Your task to perform on an android device: Empty the shopping cart on amazon.com. Image 0: 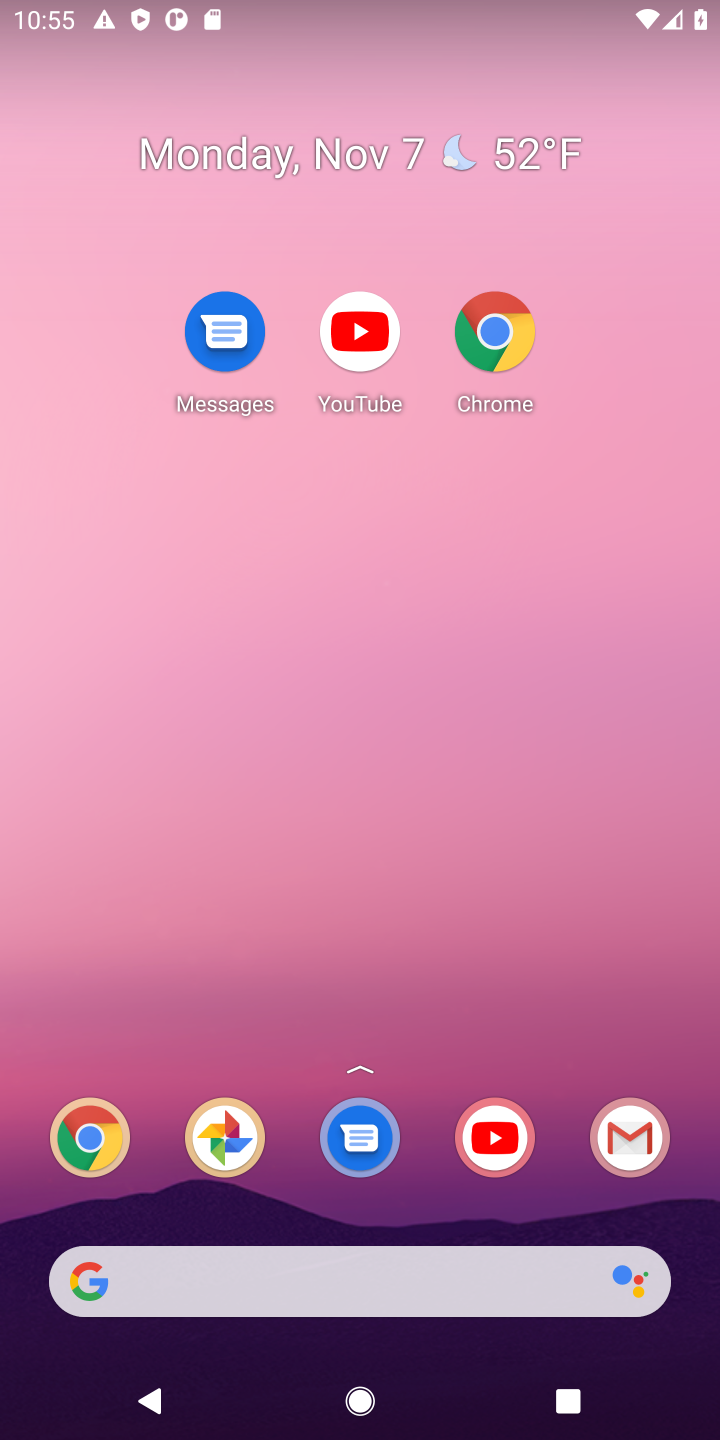
Step 0: drag from (433, 1079) to (571, 106)
Your task to perform on an android device: Empty the shopping cart on amazon.com. Image 1: 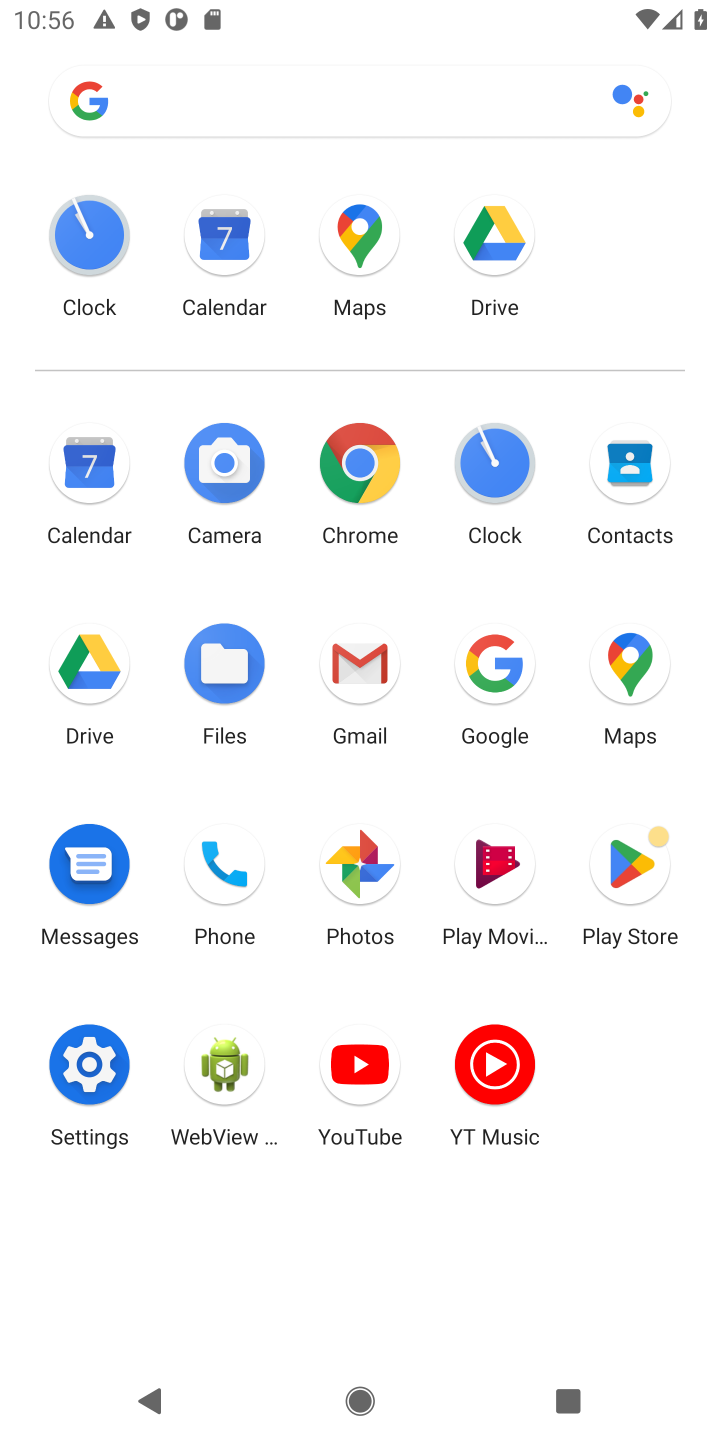
Step 1: click (358, 467)
Your task to perform on an android device: Empty the shopping cart on amazon.com. Image 2: 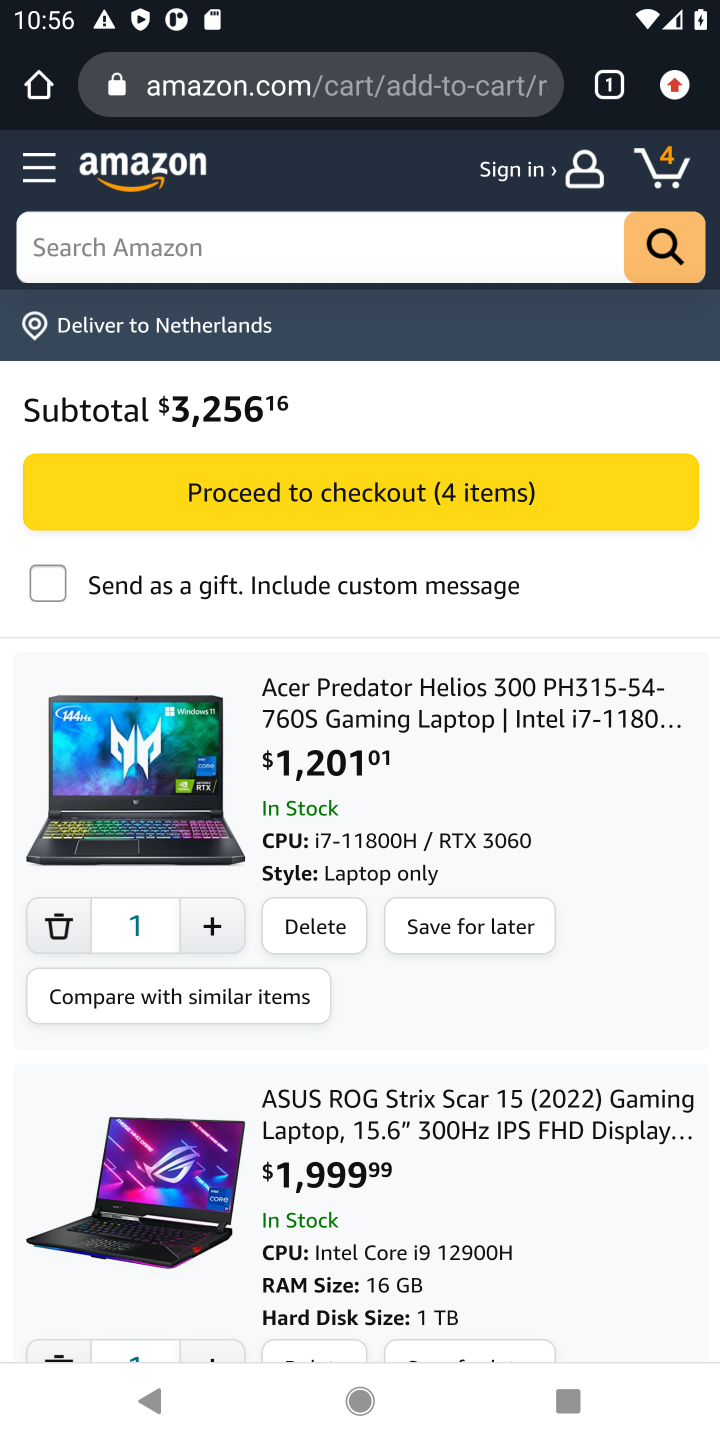
Step 2: click (656, 165)
Your task to perform on an android device: Empty the shopping cart on amazon.com. Image 3: 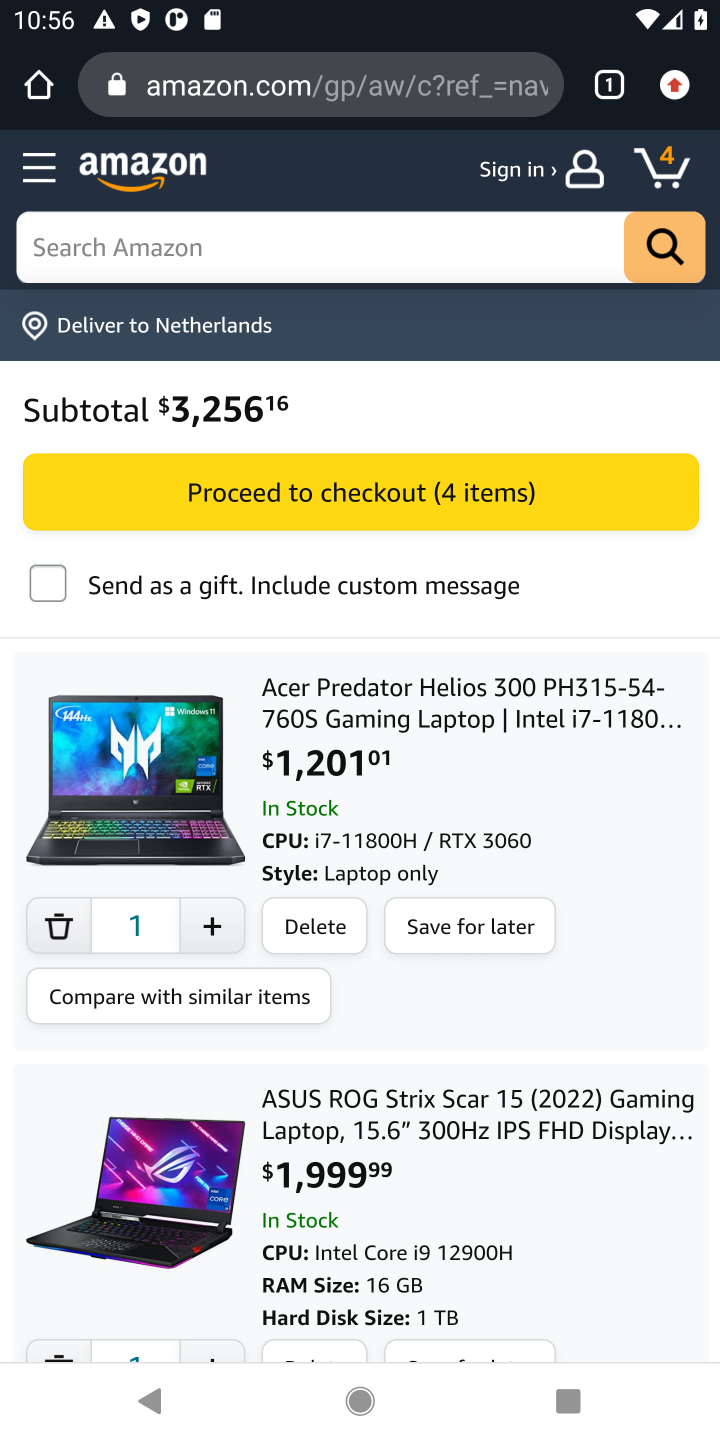
Step 3: click (68, 920)
Your task to perform on an android device: Empty the shopping cart on amazon.com. Image 4: 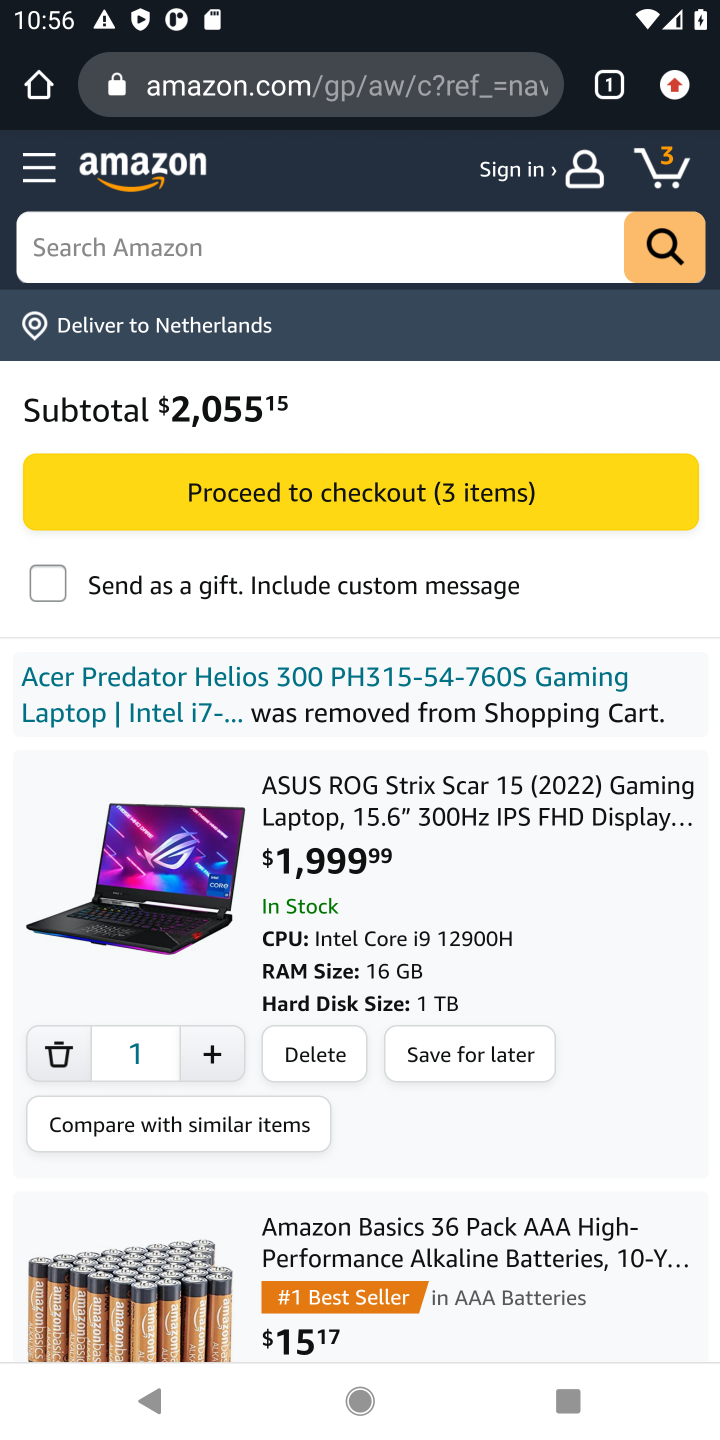
Step 4: click (45, 1047)
Your task to perform on an android device: Empty the shopping cart on amazon.com. Image 5: 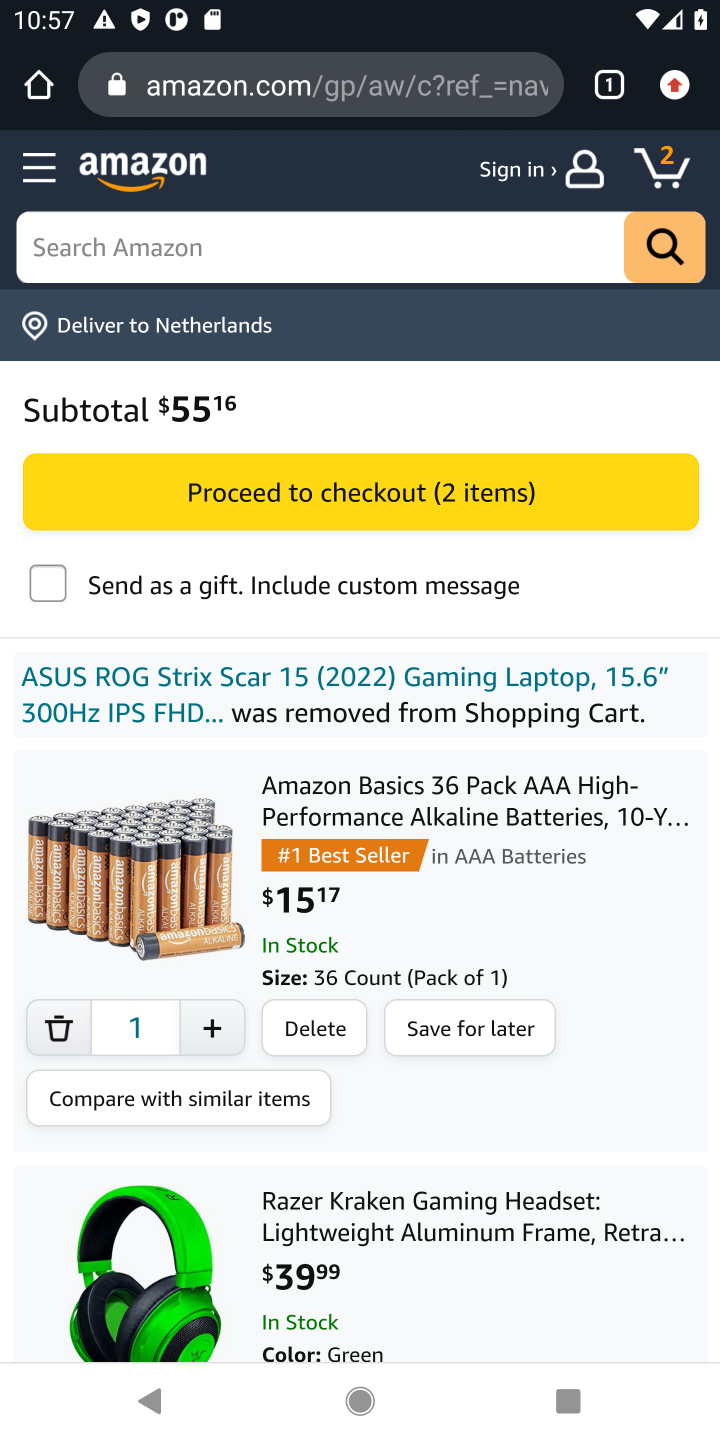
Step 5: click (62, 1014)
Your task to perform on an android device: Empty the shopping cart on amazon.com. Image 6: 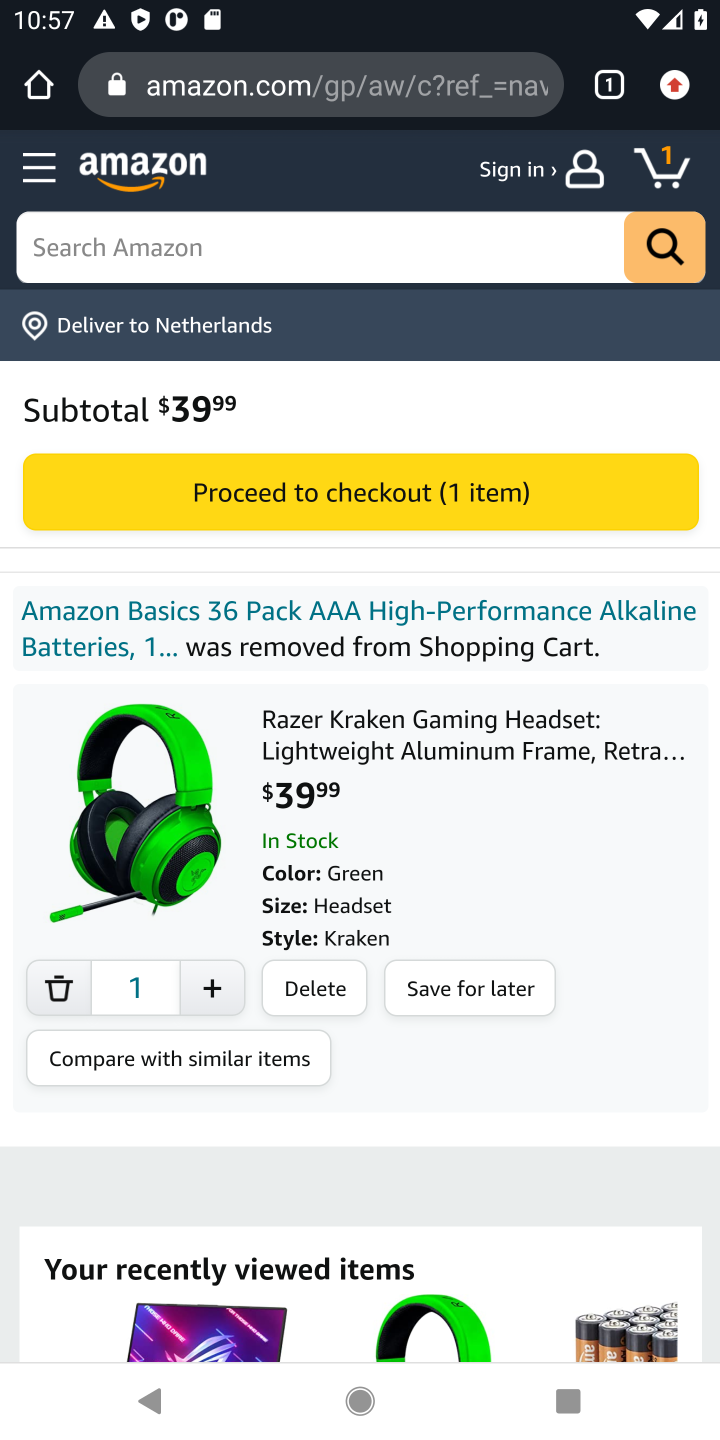
Step 6: click (59, 974)
Your task to perform on an android device: Empty the shopping cart on amazon.com. Image 7: 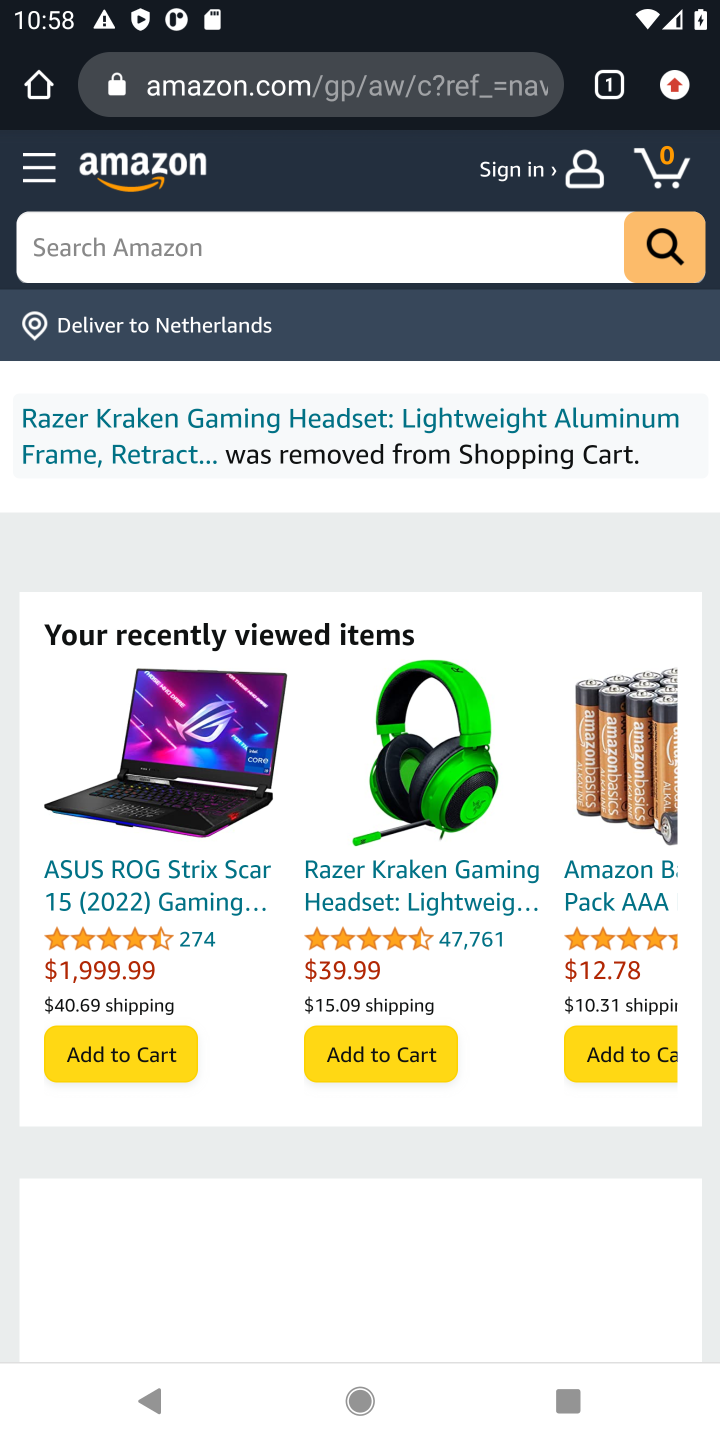
Step 7: task complete